Your task to perform on an android device: Open wifi settings Image 0: 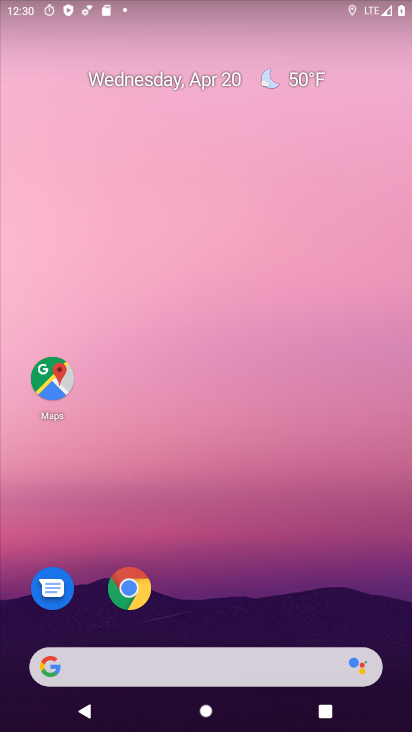
Step 0: drag from (230, 608) to (351, 24)
Your task to perform on an android device: Open wifi settings Image 1: 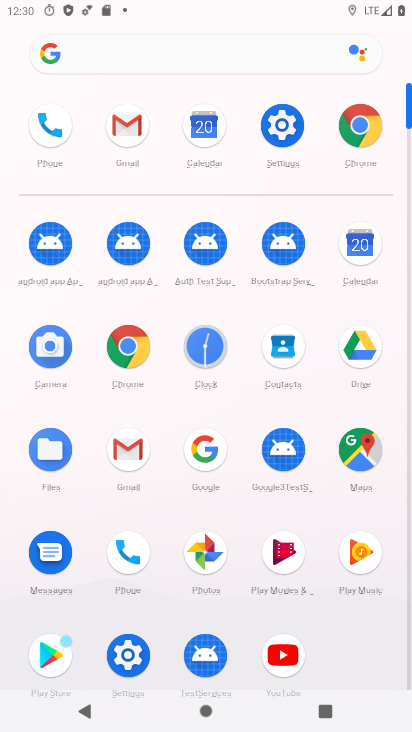
Step 1: click (127, 659)
Your task to perform on an android device: Open wifi settings Image 2: 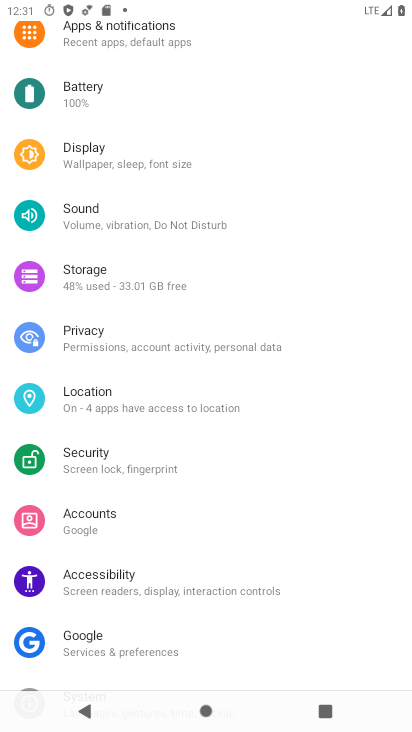
Step 2: drag from (253, 140) to (267, 501)
Your task to perform on an android device: Open wifi settings Image 3: 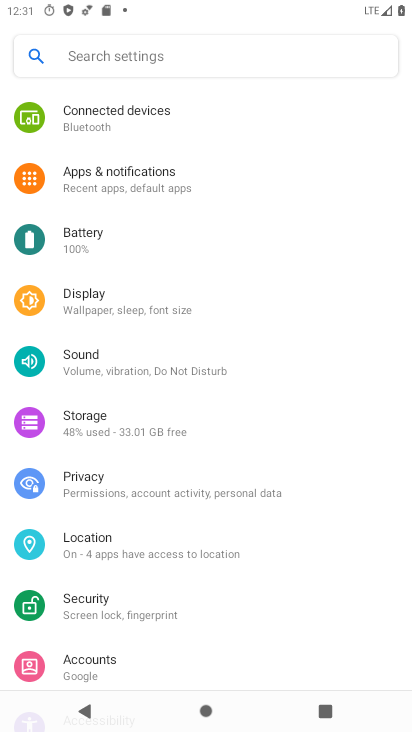
Step 3: drag from (159, 130) to (170, 559)
Your task to perform on an android device: Open wifi settings Image 4: 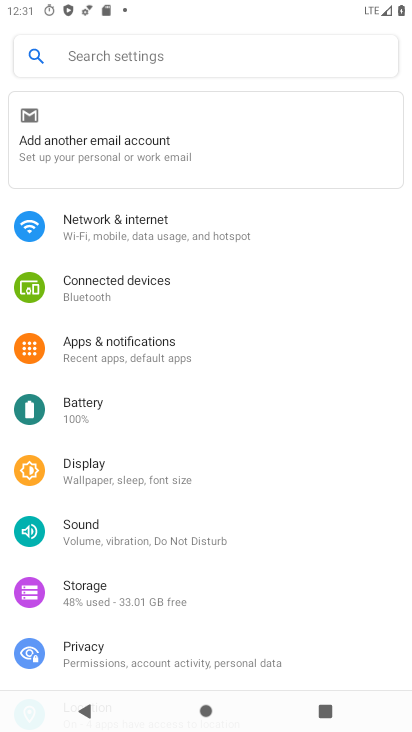
Step 4: click (138, 227)
Your task to perform on an android device: Open wifi settings Image 5: 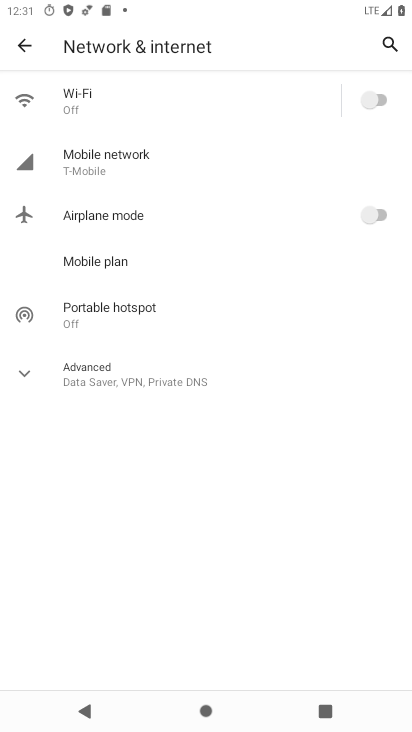
Step 5: click (119, 110)
Your task to perform on an android device: Open wifi settings Image 6: 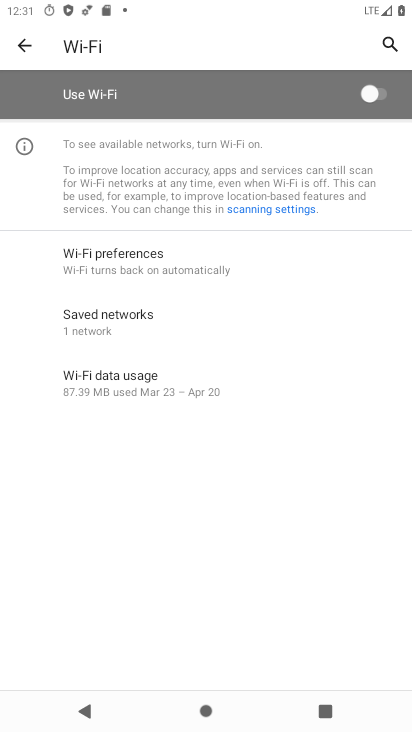
Step 6: task complete